Your task to perform on an android device: Search for seafood restaurants on Google Maps Image 0: 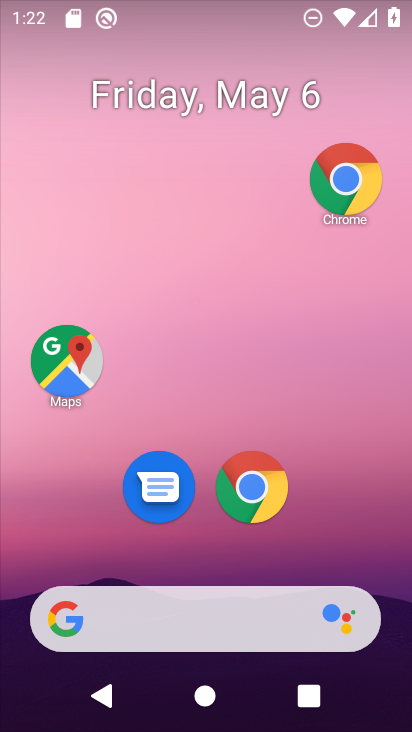
Step 0: click (47, 360)
Your task to perform on an android device: Search for seafood restaurants on Google Maps Image 1: 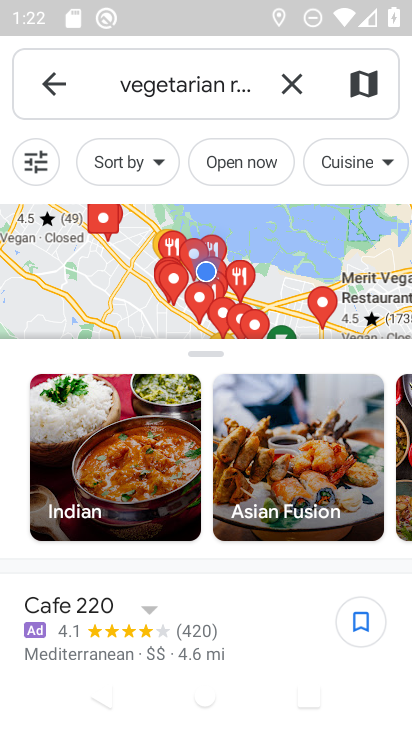
Step 1: click (289, 83)
Your task to perform on an android device: Search for seafood restaurants on Google Maps Image 2: 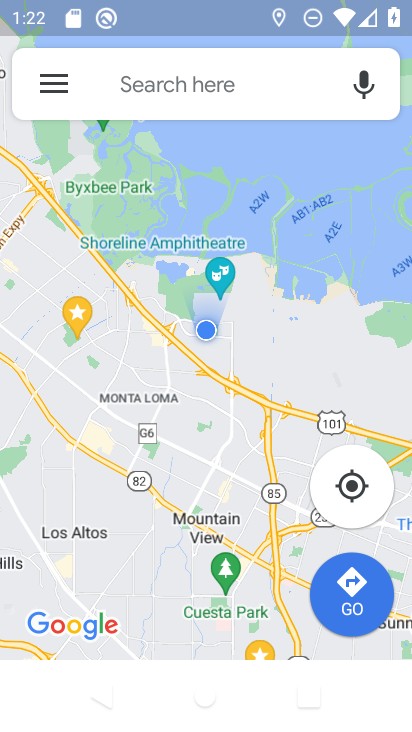
Step 2: click (218, 89)
Your task to perform on an android device: Search for seafood restaurants on Google Maps Image 3: 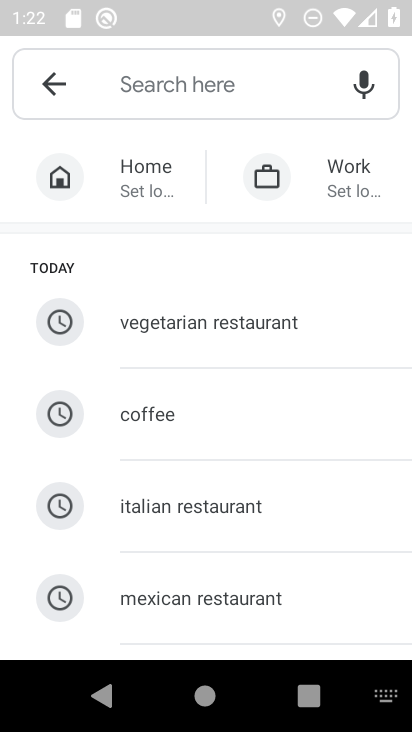
Step 3: type "seafood"
Your task to perform on an android device: Search for seafood restaurants on Google Maps Image 4: 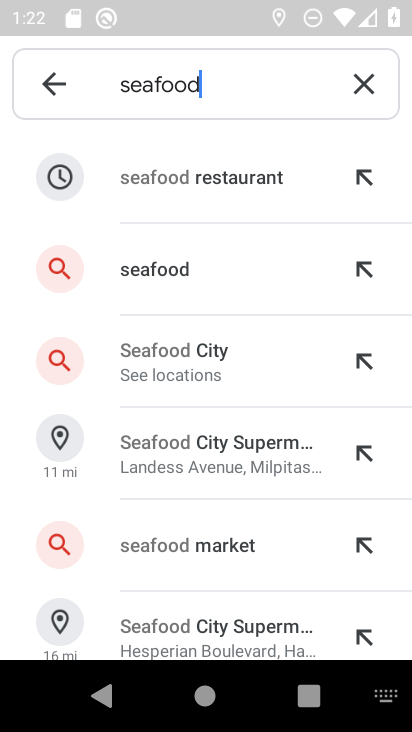
Step 4: click (162, 169)
Your task to perform on an android device: Search for seafood restaurants on Google Maps Image 5: 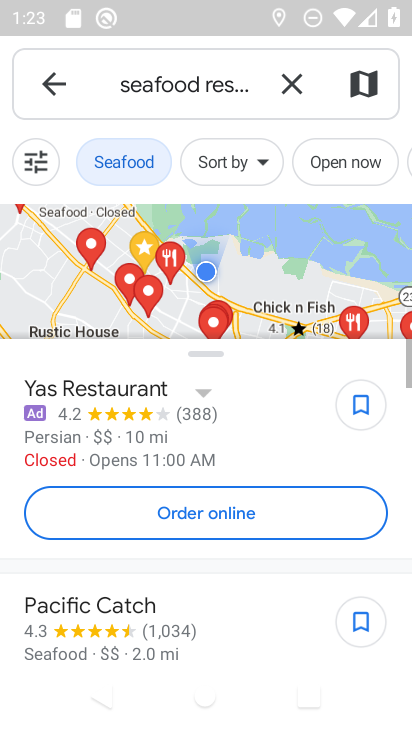
Step 5: task complete